Your task to perform on an android device: Open Google Chrome and click the shortcut for Amazon.com Image 0: 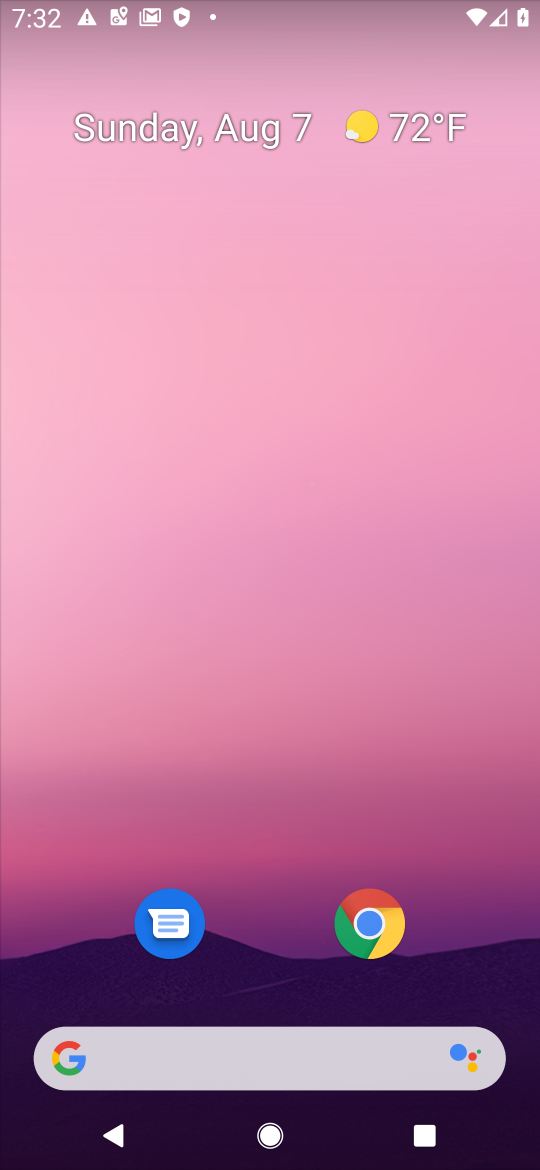
Step 0: drag from (469, 1013) to (328, 37)
Your task to perform on an android device: Open Google Chrome and click the shortcut for Amazon.com Image 1: 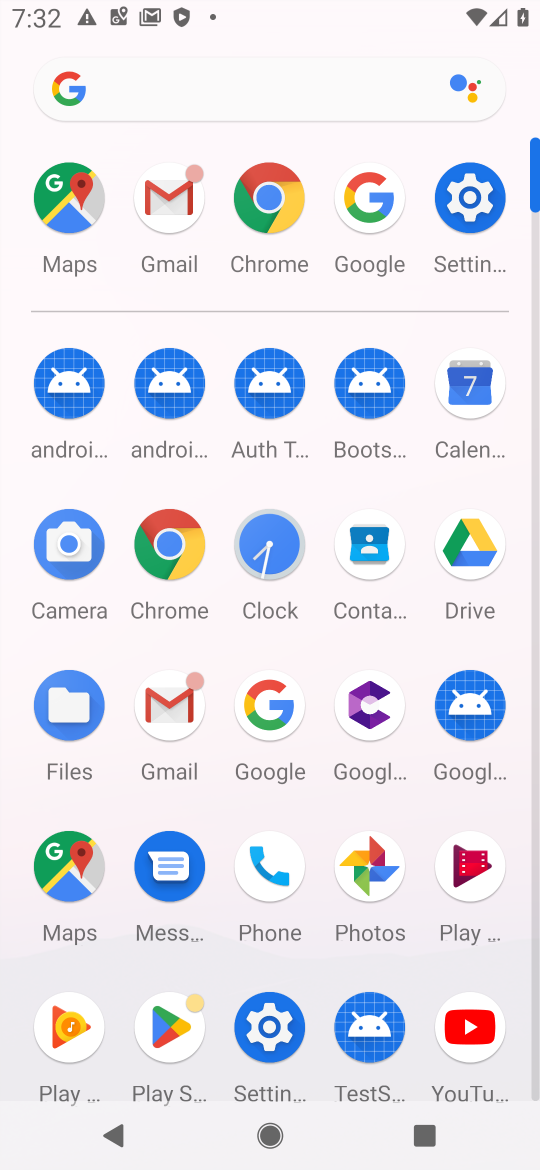
Step 1: click (256, 206)
Your task to perform on an android device: Open Google Chrome and click the shortcut for Amazon.com Image 2: 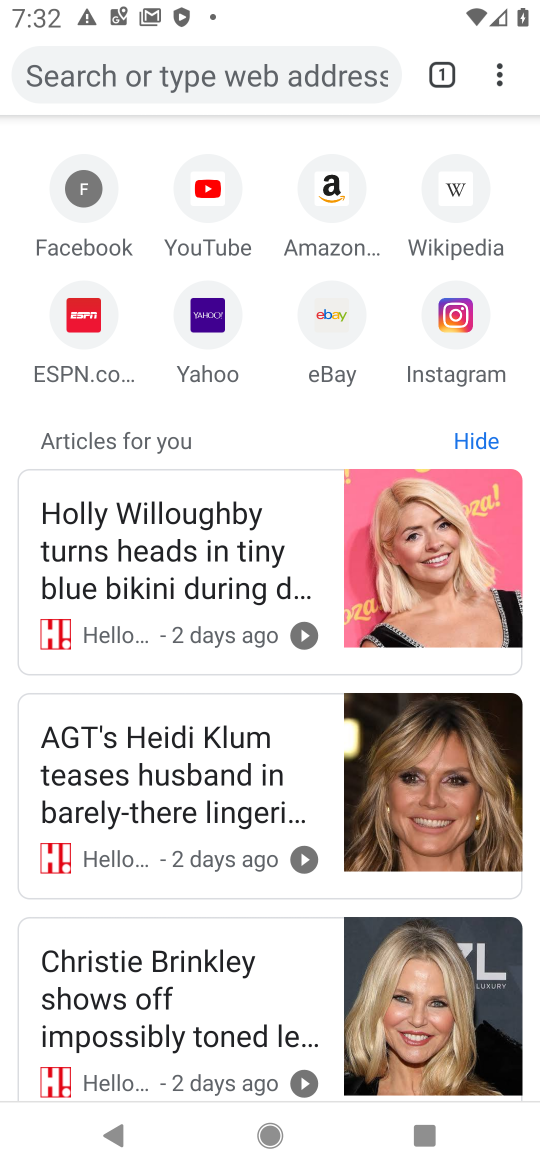
Step 2: click (332, 187)
Your task to perform on an android device: Open Google Chrome and click the shortcut for Amazon.com Image 3: 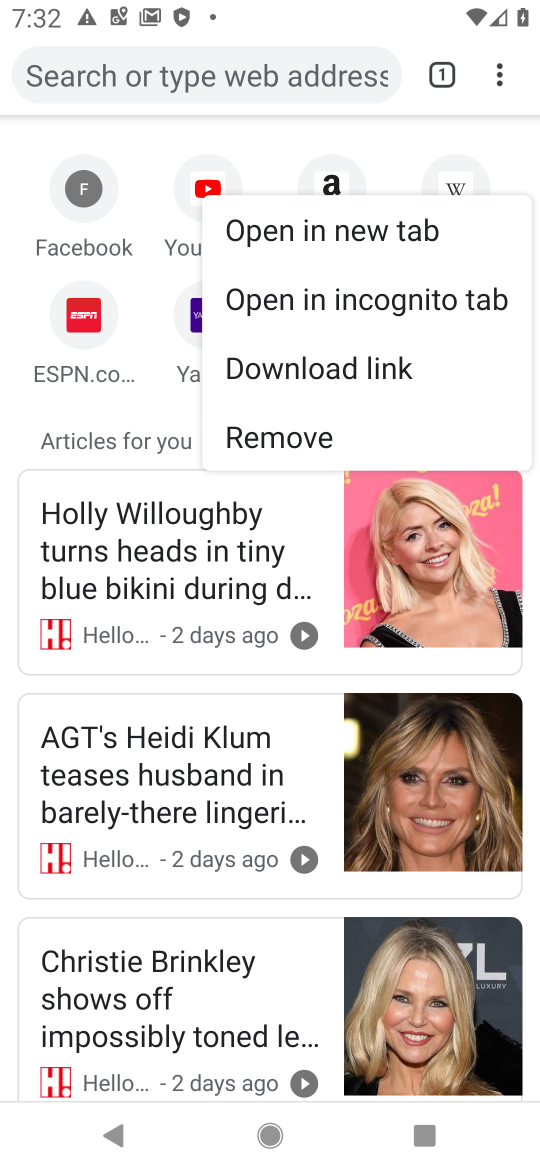
Step 3: click (322, 168)
Your task to perform on an android device: Open Google Chrome and click the shortcut for Amazon.com Image 4: 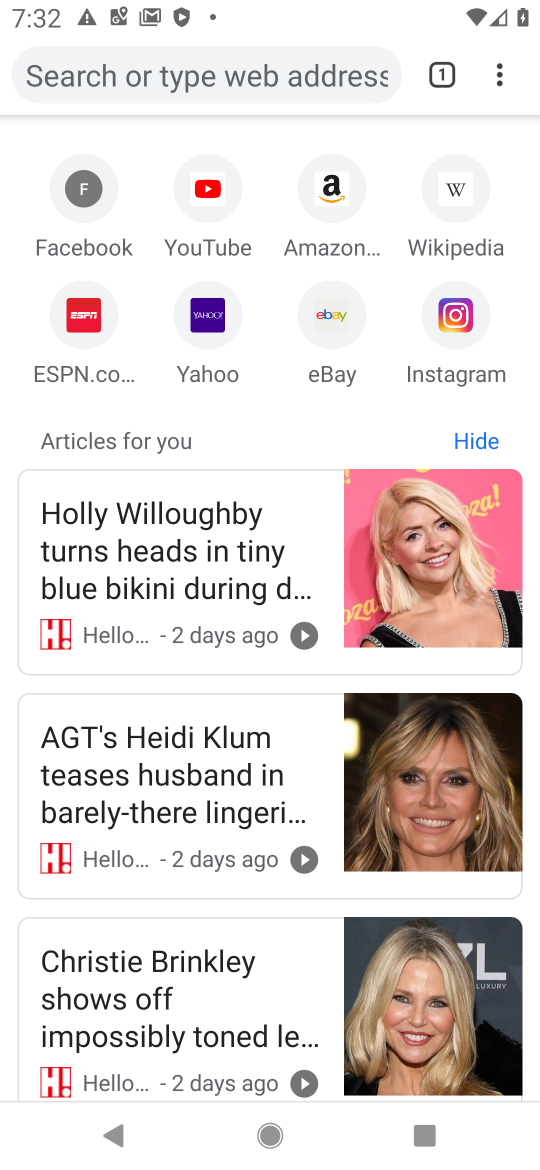
Step 4: click (321, 188)
Your task to perform on an android device: Open Google Chrome and click the shortcut for Amazon.com Image 5: 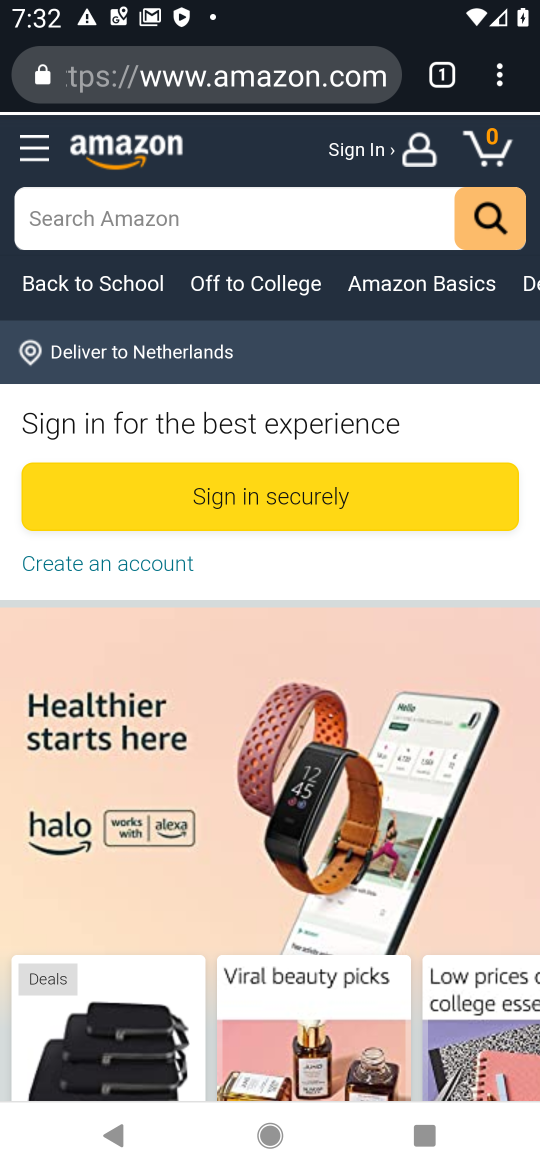
Step 5: task complete